Your task to perform on an android device: toggle notifications settings in the gmail app Image 0: 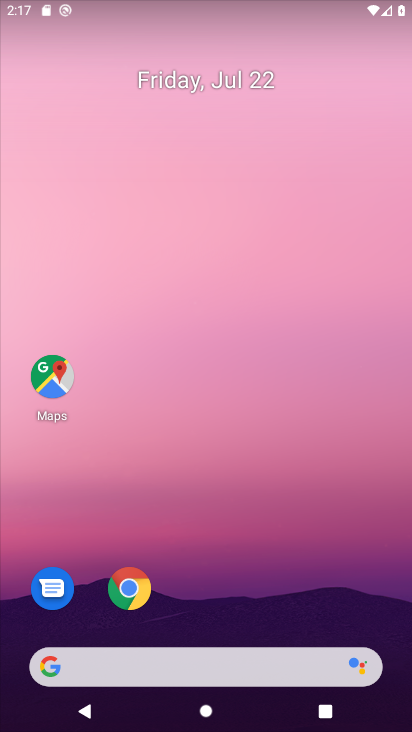
Step 0: drag from (271, 296) to (230, 99)
Your task to perform on an android device: toggle notifications settings in the gmail app Image 1: 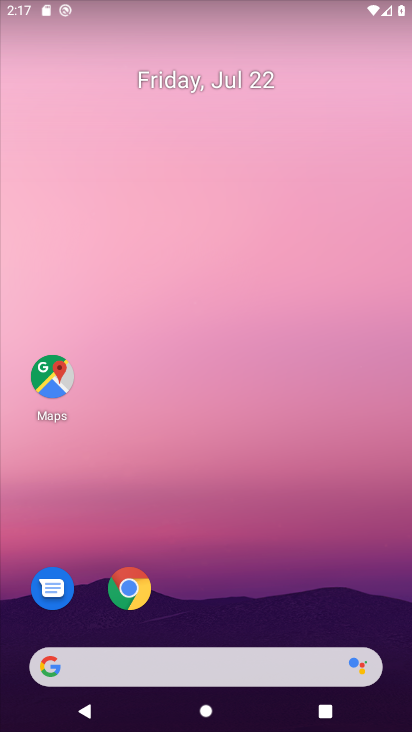
Step 1: drag from (274, 614) to (238, 114)
Your task to perform on an android device: toggle notifications settings in the gmail app Image 2: 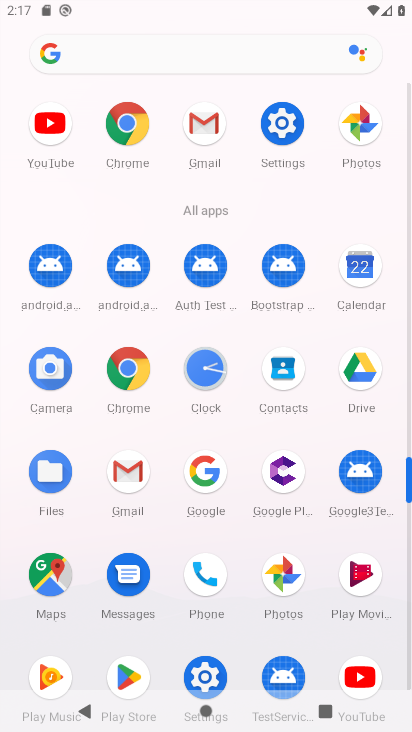
Step 2: drag from (266, 301) to (263, 7)
Your task to perform on an android device: toggle notifications settings in the gmail app Image 3: 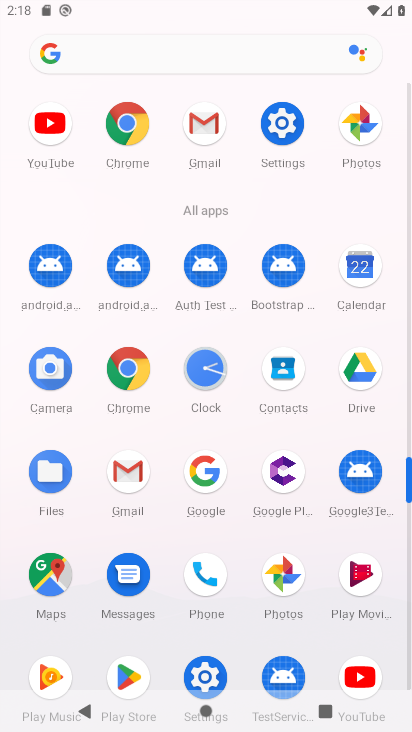
Step 3: click (276, 129)
Your task to perform on an android device: toggle notifications settings in the gmail app Image 4: 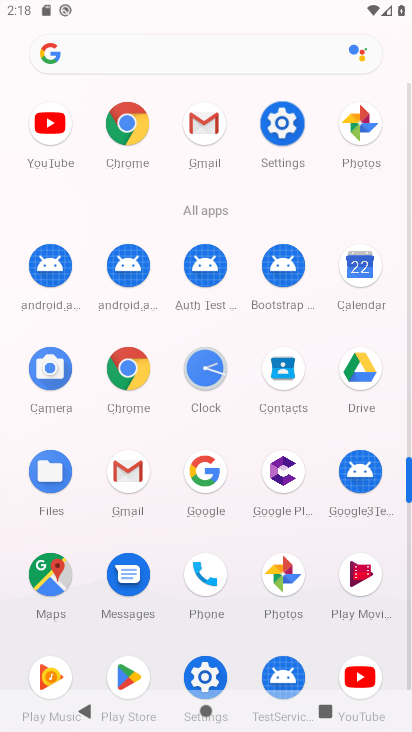
Step 4: click (275, 128)
Your task to perform on an android device: toggle notifications settings in the gmail app Image 5: 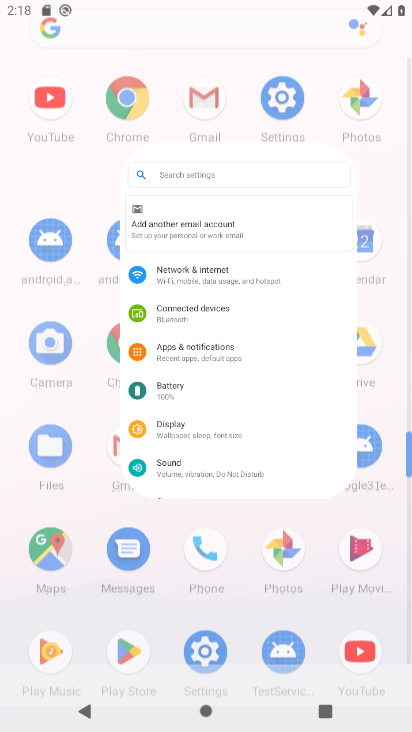
Step 5: click (275, 128)
Your task to perform on an android device: toggle notifications settings in the gmail app Image 6: 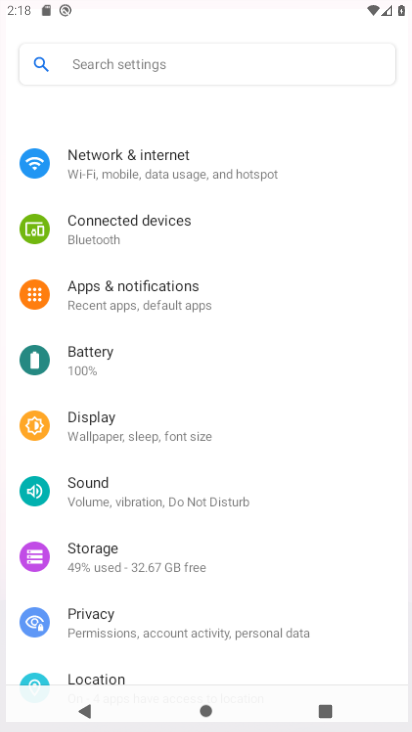
Step 6: click (278, 124)
Your task to perform on an android device: toggle notifications settings in the gmail app Image 7: 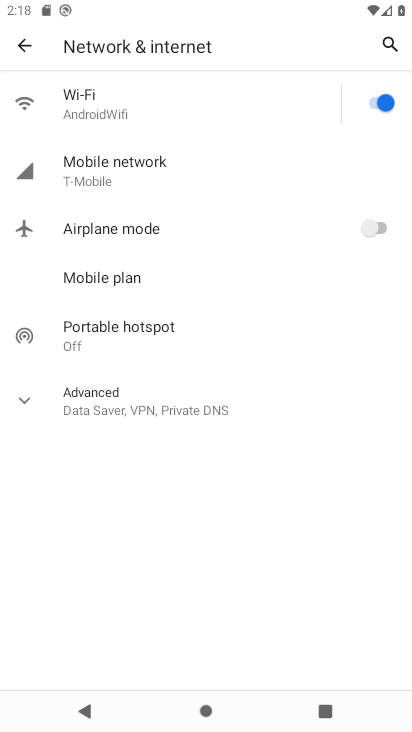
Step 7: click (29, 38)
Your task to perform on an android device: toggle notifications settings in the gmail app Image 8: 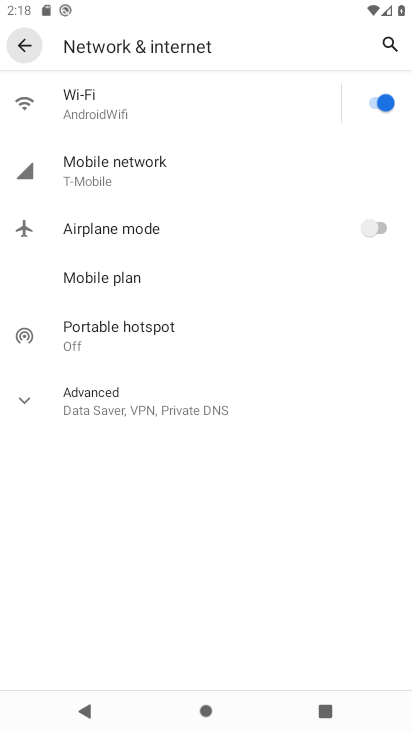
Step 8: click (17, 45)
Your task to perform on an android device: toggle notifications settings in the gmail app Image 9: 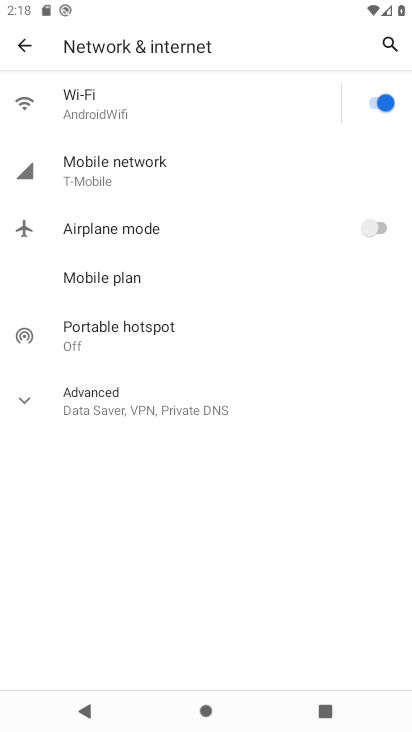
Step 9: click (17, 45)
Your task to perform on an android device: toggle notifications settings in the gmail app Image 10: 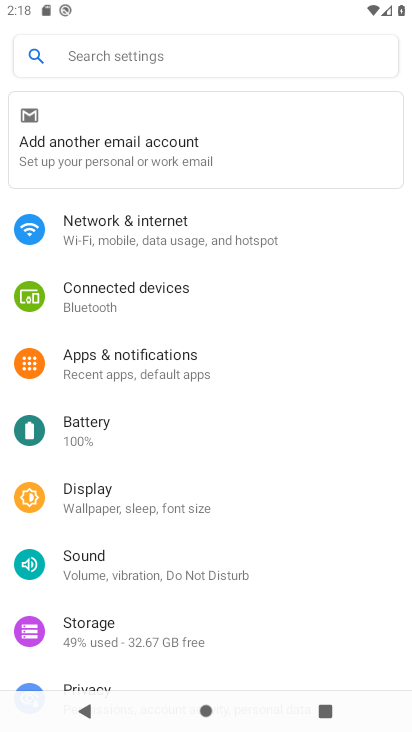
Step 10: click (124, 358)
Your task to perform on an android device: toggle notifications settings in the gmail app Image 11: 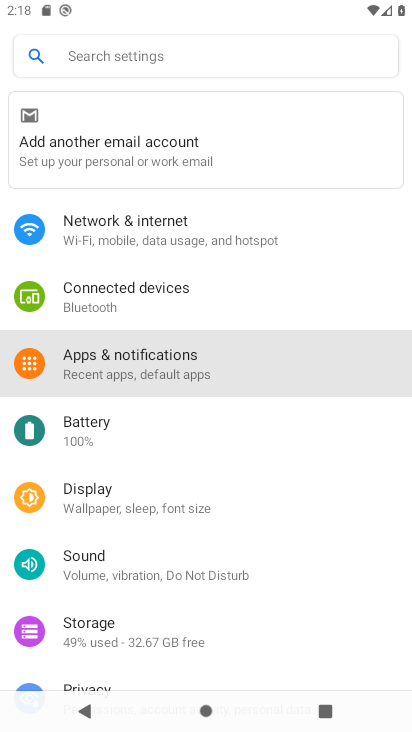
Step 11: click (124, 364)
Your task to perform on an android device: toggle notifications settings in the gmail app Image 12: 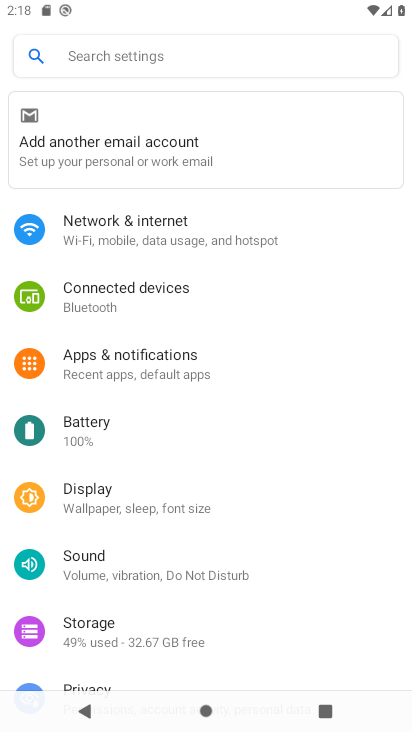
Step 12: click (124, 365)
Your task to perform on an android device: toggle notifications settings in the gmail app Image 13: 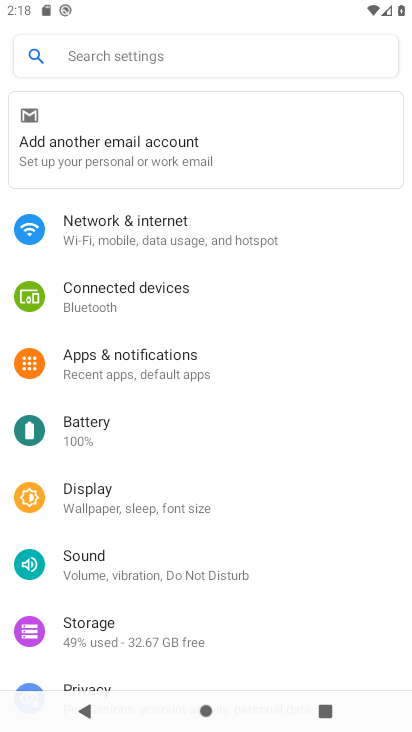
Step 13: click (129, 364)
Your task to perform on an android device: toggle notifications settings in the gmail app Image 14: 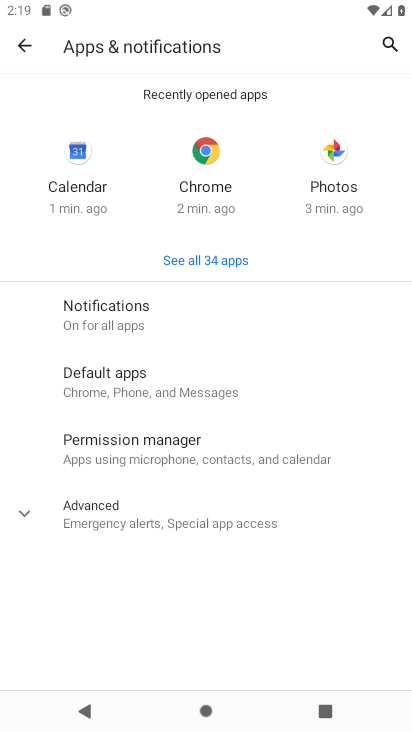
Step 14: click (89, 316)
Your task to perform on an android device: toggle notifications settings in the gmail app Image 15: 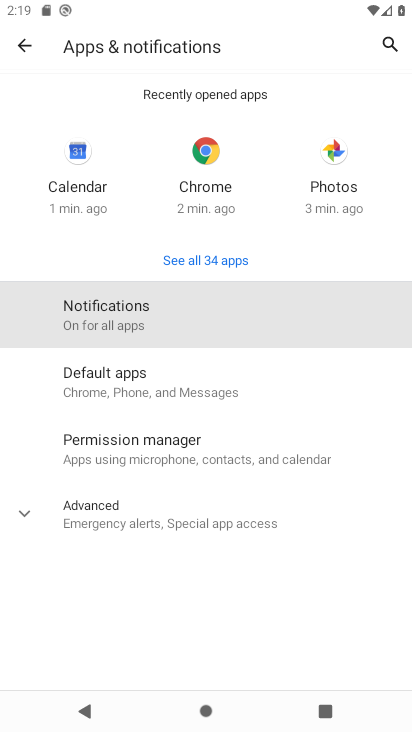
Step 15: click (89, 316)
Your task to perform on an android device: toggle notifications settings in the gmail app Image 16: 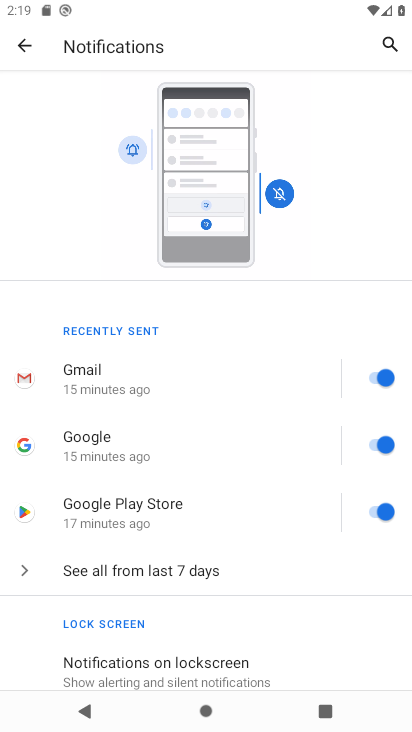
Step 16: drag from (116, 553) to (97, 260)
Your task to perform on an android device: toggle notifications settings in the gmail app Image 17: 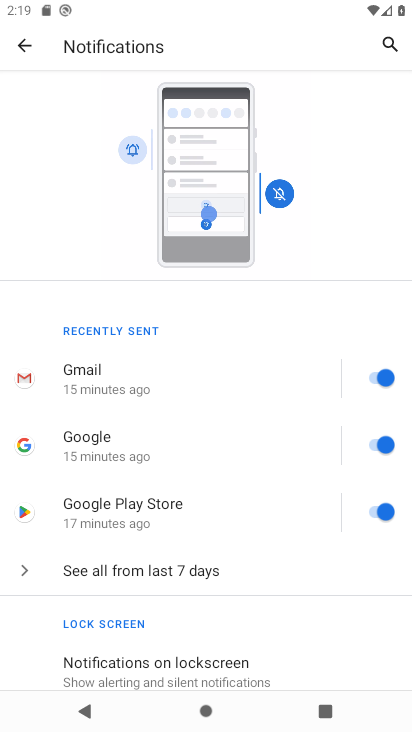
Step 17: drag from (90, 257) to (82, 168)
Your task to perform on an android device: toggle notifications settings in the gmail app Image 18: 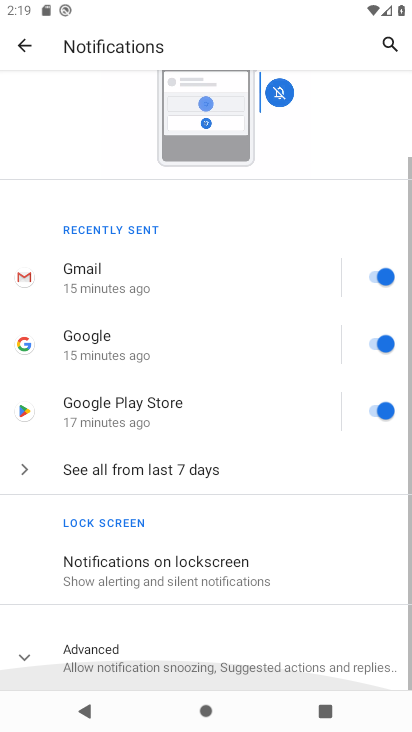
Step 18: drag from (143, 549) to (201, 233)
Your task to perform on an android device: toggle notifications settings in the gmail app Image 19: 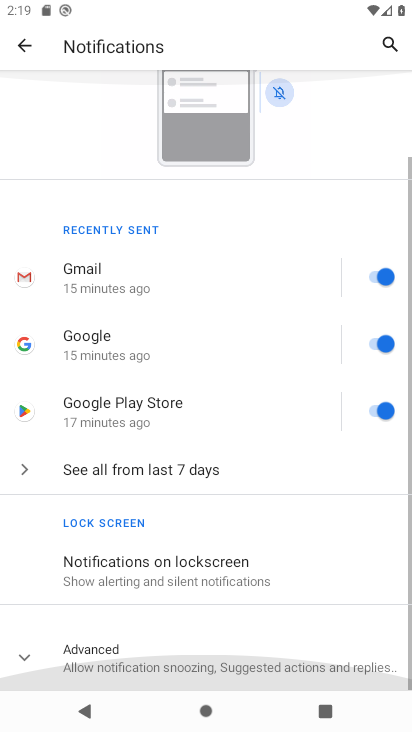
Step 19: click (84, 424)
Your task to perform on an android device: toggle notifications settings in the gmail app Image 20: 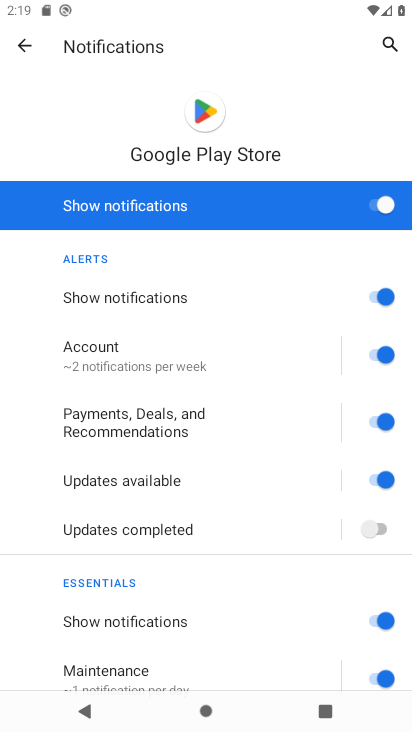
Step 20: task complete